Your task to perform on an android device: delete browsing data in the chrome app Image 0: 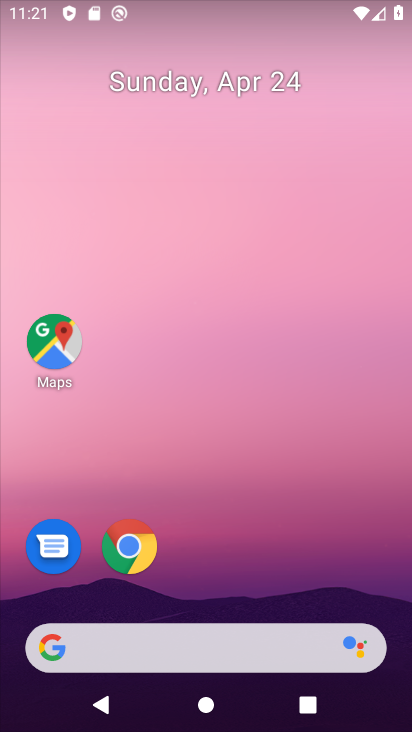
Step 0: click (130, 549)
Your task to perform on an android device: delete browsing data in the chrome app Image 1: 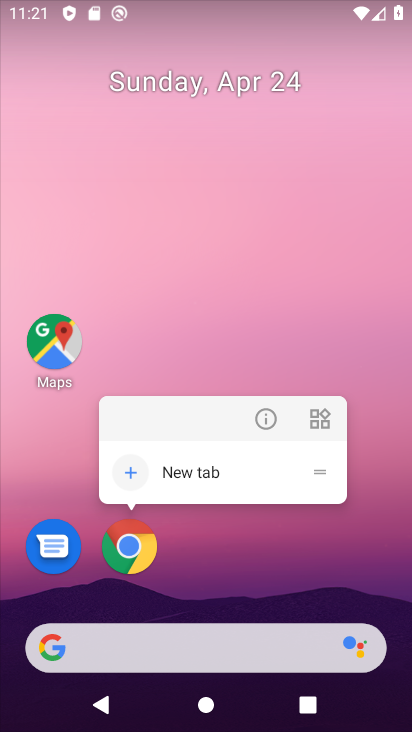
Step 1: click (140, 558)
Your task to perform on an android device: delete browsing data in the chrome app Image 2: 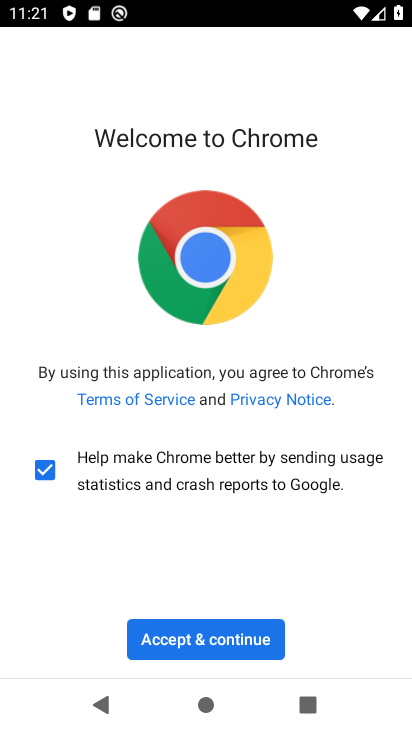
Step 2: click (177, 638)
Your task to perform on an android device: delete browsing data in the chrome app Image 3: 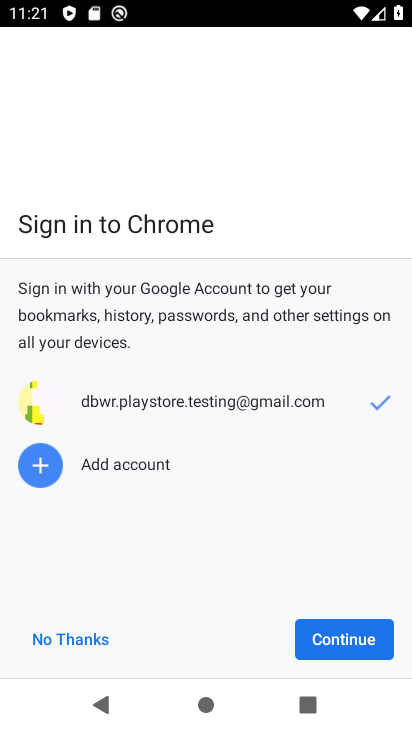
Step 3: click (336, 615)
Your task to perform on an android device: delete browsing data in the chrome app Image 4: 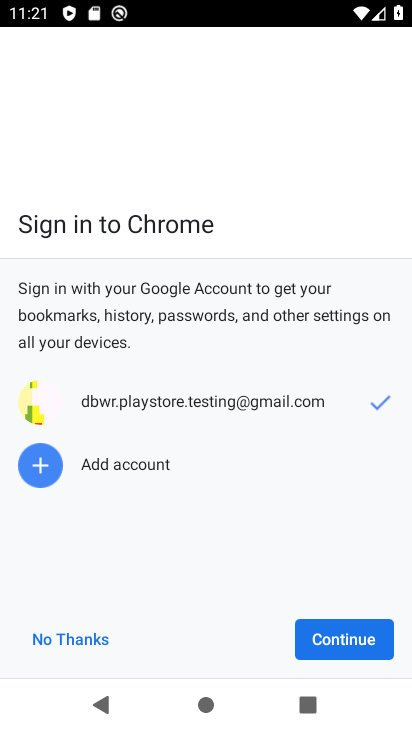
Step 4: click (354, 631)
Your task to perform on an android device: delete browsing data in the chrome app Image 5: 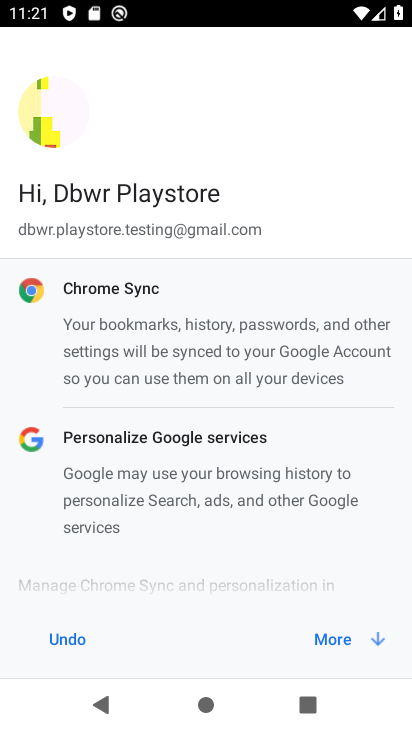
Step 5: click (337, 627)
Your task to perform on an android device: delete browsing data in the chrome app Image 6: 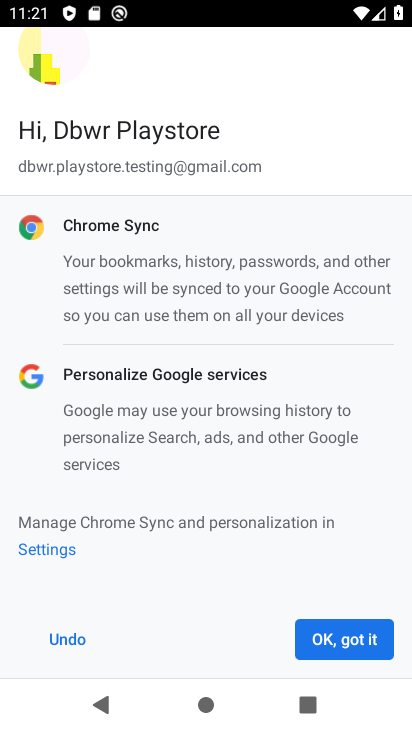
Step 6: click (337, 630)
Your task to perform on an android device: delete browsing data in the chrome app Image 7: 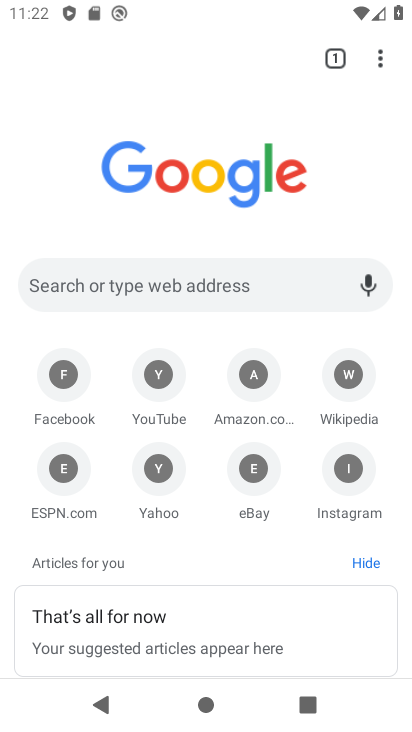
Step 7: click (381, 67)
Your task to perform on an android device: delete browsing data in the chrome app Image 8: 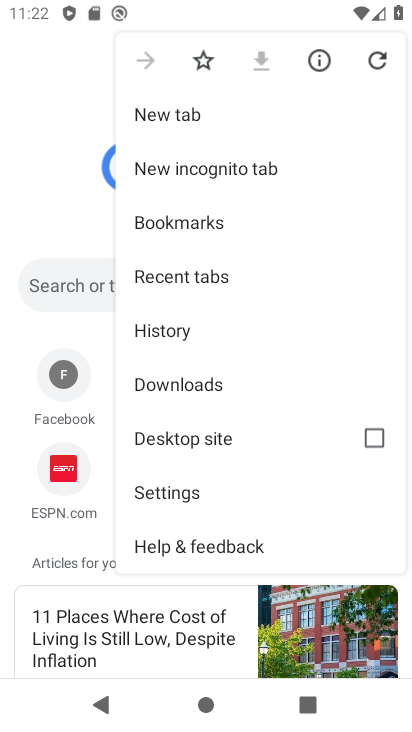
Step 8: click (184, 336)
Your task to perform on an android device: delete browsing data in the chrome app Image 9: 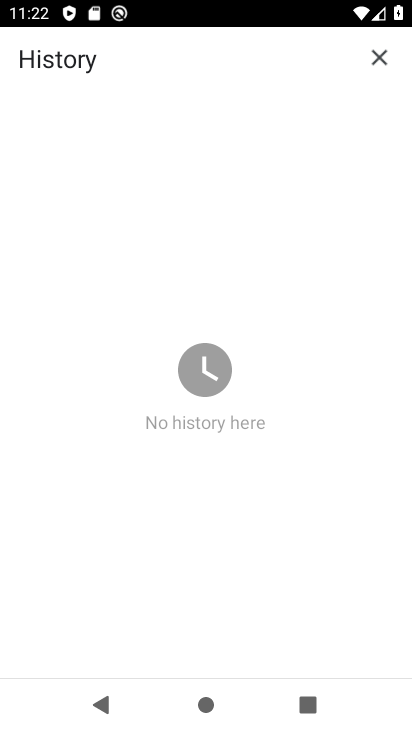
Step 9: task complete